Your task to perform on an android device: Open Google Chrome and open the bookmarks view Image 0: 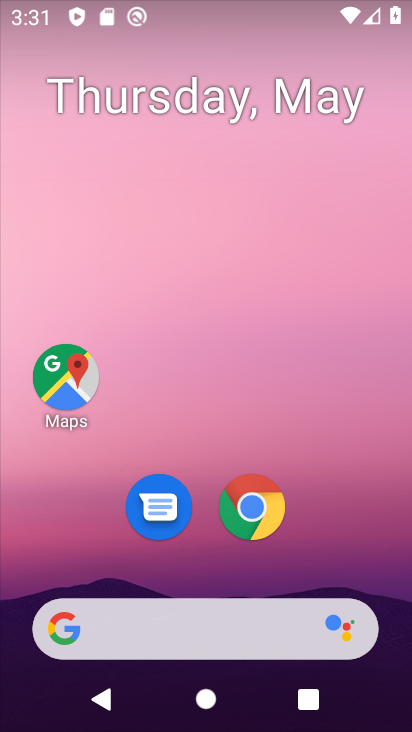
Step 0: drag from (260, 652) to (160, 11)
Your task to perform on an android device: Open Google Chrome and open the bookmarks view Image 1: 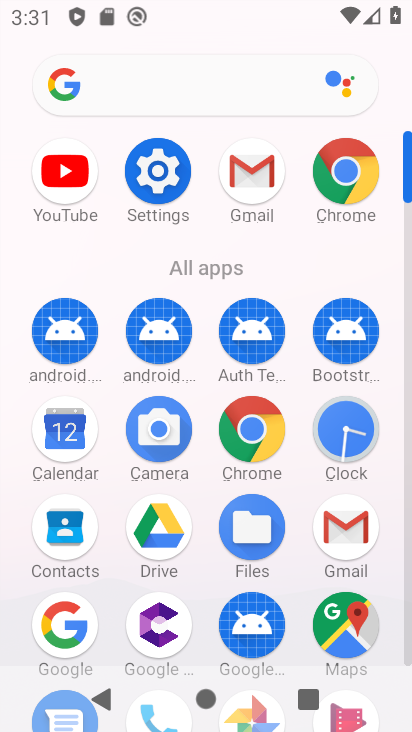
Step 1: click (340, 164)
Your task to perform on an android device: Open Google Chrome and open the bookmarks view Image 2: 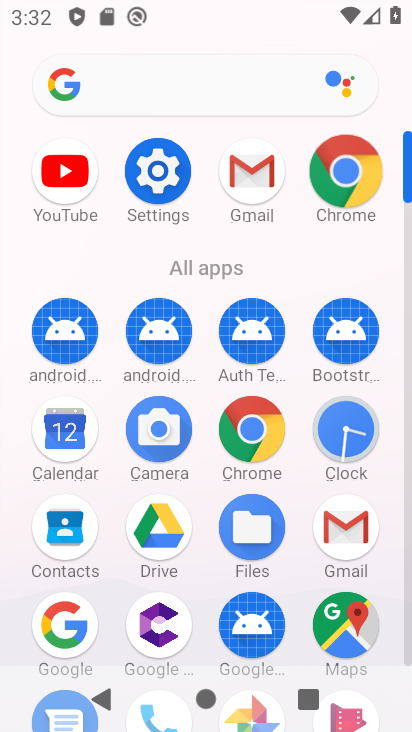
Step 2: click (340, 165)
Your task to perform on an android device: Open Google Chrome and open the bookmarks view Image 3: 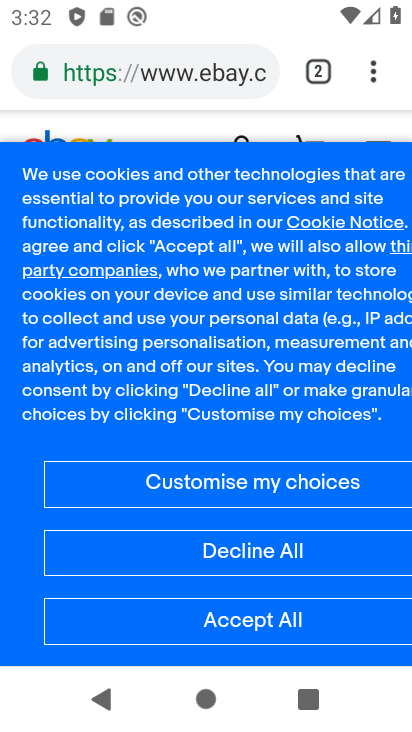
Step 3: click (372, 69)
Your task to perform on an android device: Open Google Chrome and open the bookmarks view Image 4: 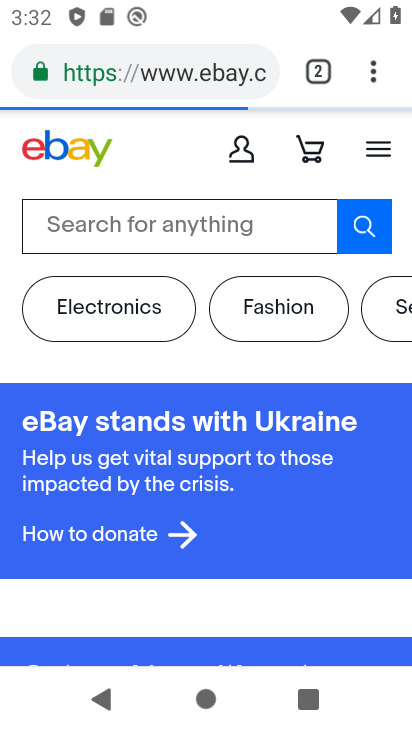
Step 4: click (372, 69)
Your task to perform on an android device: Open Google Chrome and open the bookmarks view Image 5: 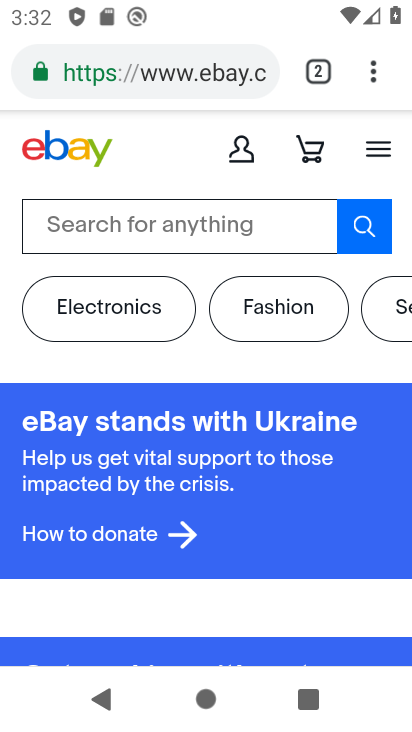
Step 5: drag from (372, 69) to (159, 224)
Your task to perform on an android device: Open Google Chrome and open the bookmarks view Image 6: 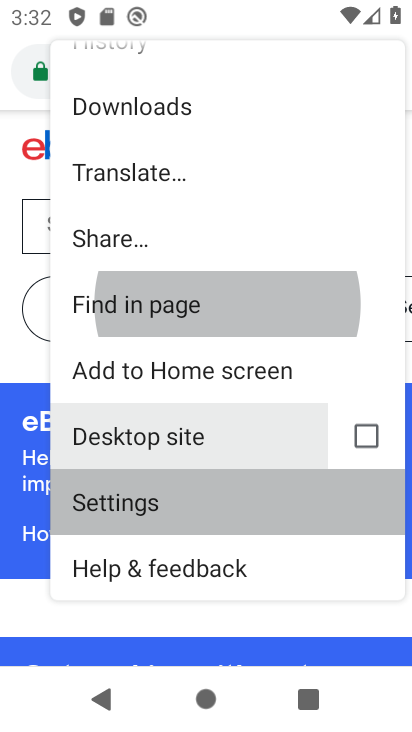
Step 6: drag from (162, 169) to (317, 58)
Your task to perform on an android device: Open Google Chrome and open the bookmarks view Image 7: 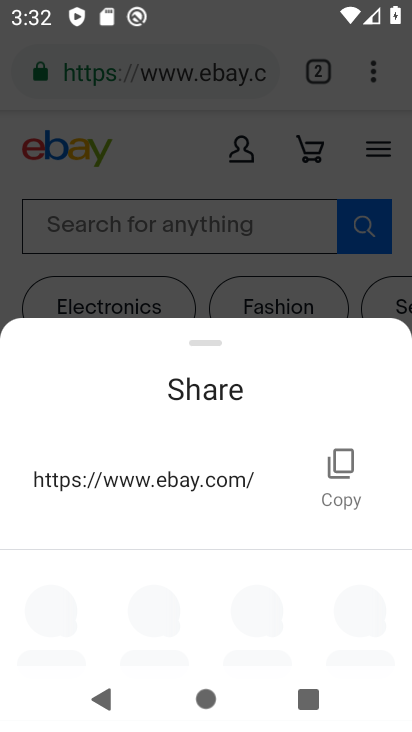
Step 7: click (365, 62)
Your task to perform on an android device: Open Google Chrome and open the bookmarks view Image 8: 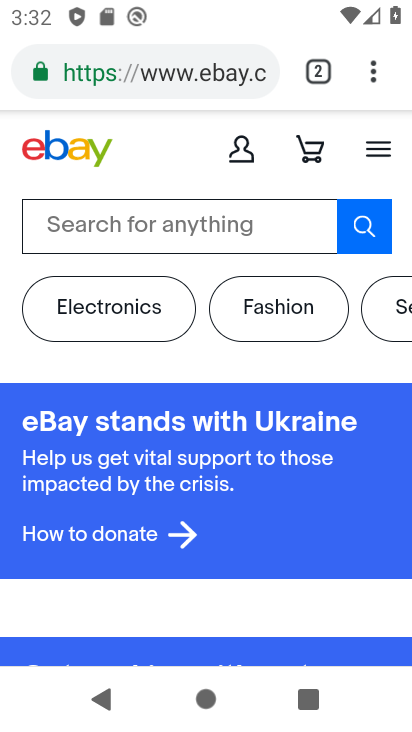
Step 8: drag from (369, 70) to (135, 270)
Your task to perform on an android device: Open Google Chrome and open the bookmarks view Image 9: 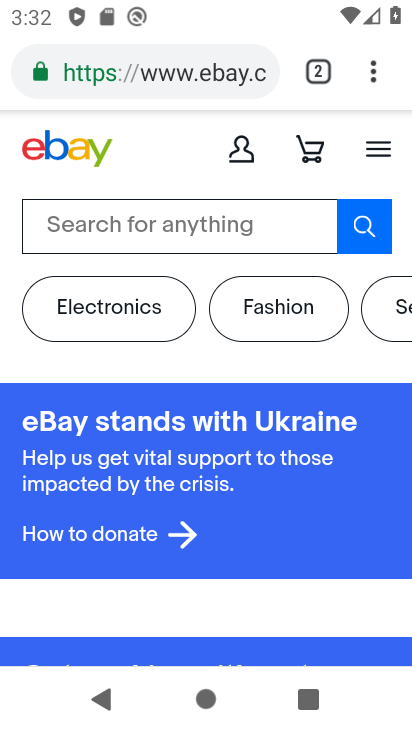
Step 9: click (139, 288)
Your task to perform on an android device: Open Google Chrome and open the bookmarks view Image 10: 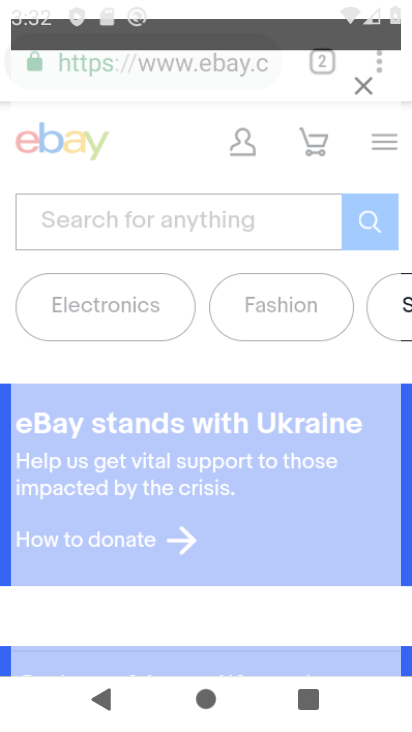
Step 10: click (143, 288)
Your task to perform on an android device: Open Google Chrome and open the bookmarks view Image 11: 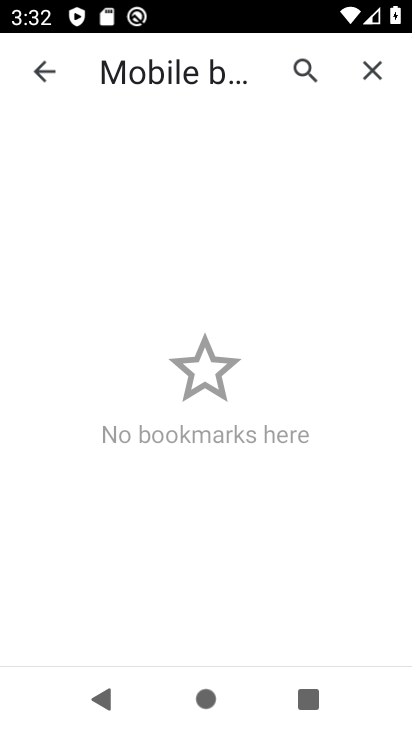
Step 11: task complete